Your task to perform on an android device: turn on translation in the chrome app Image 0: 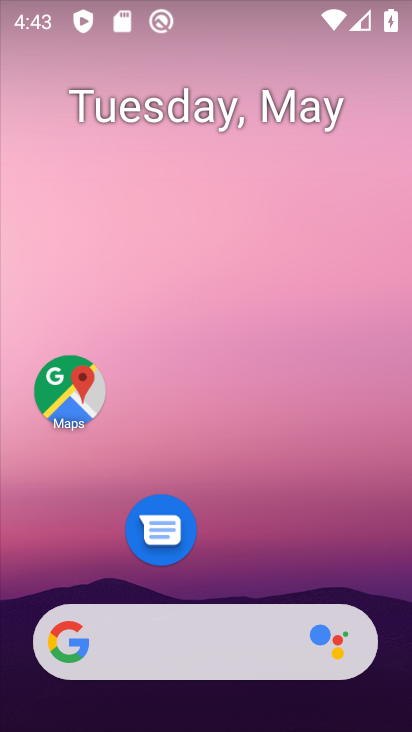
Step 0: drag from (267, 569) to (204, 51)
Your task to perform on an android device: turn on translation in the chrome app Image 1: 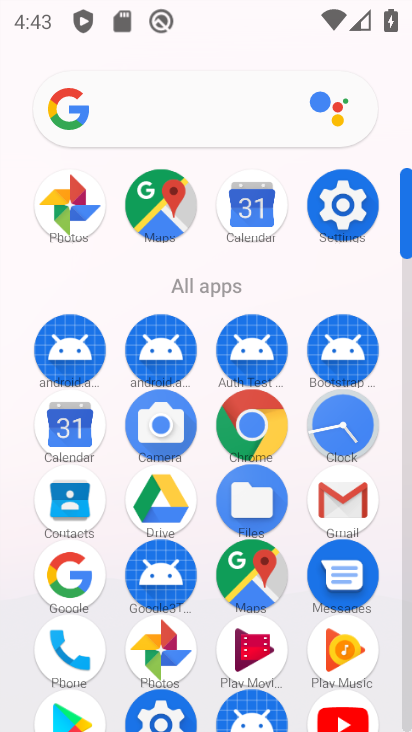
Step 1: click (247, 420)
Your task to perform on an android device: turn on translation in the chrome app Image 2: 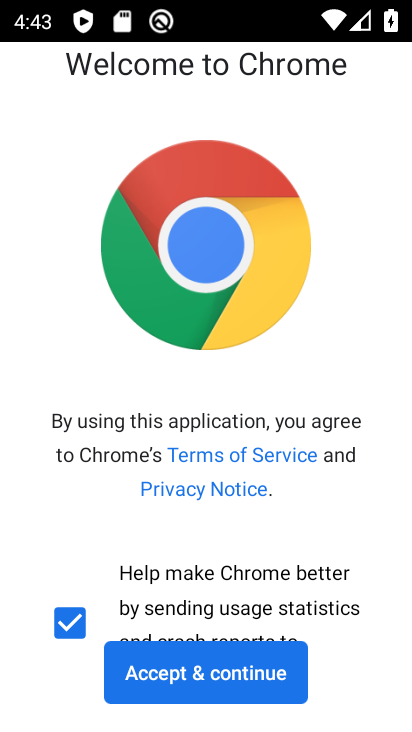
Step 2: click (248, 660)
Your task to perform on an android device: turn on translation in the chrome app Image 3: 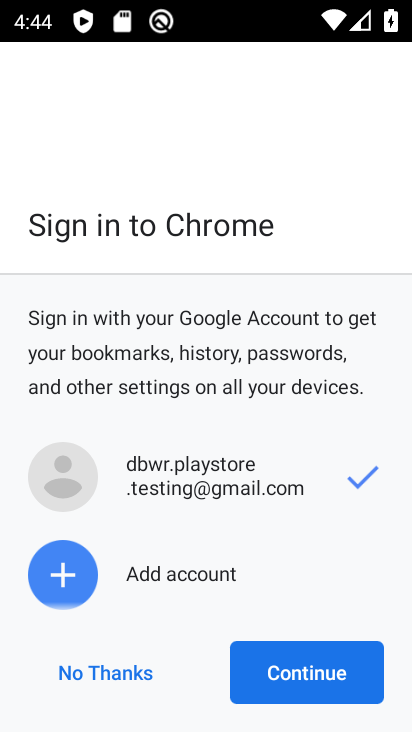
Step 3: click (251, 673)
Your task to perform on an android device: turn on translation in the chrome app Image 4: 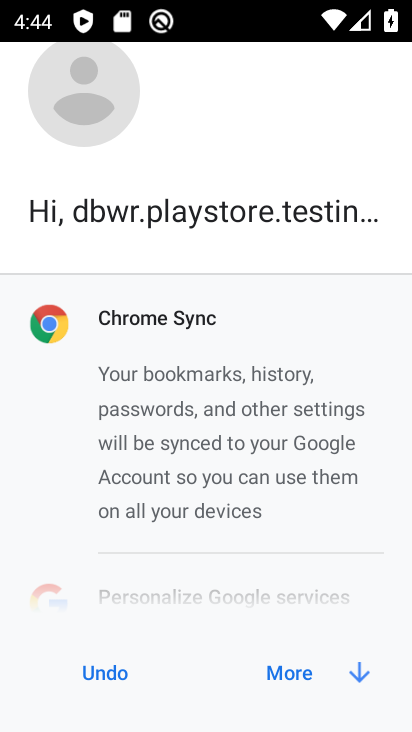
Step 4: click (280, 681)
Your task to perform on an android device: turn on translation in the chrome app Image 5: 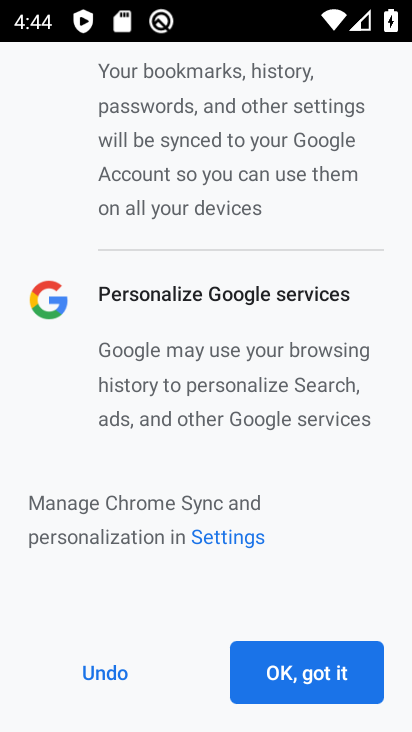
Step 5: click (266, 652)
Your task to perform on an android device: turn on translation in the chrome app Image 6: 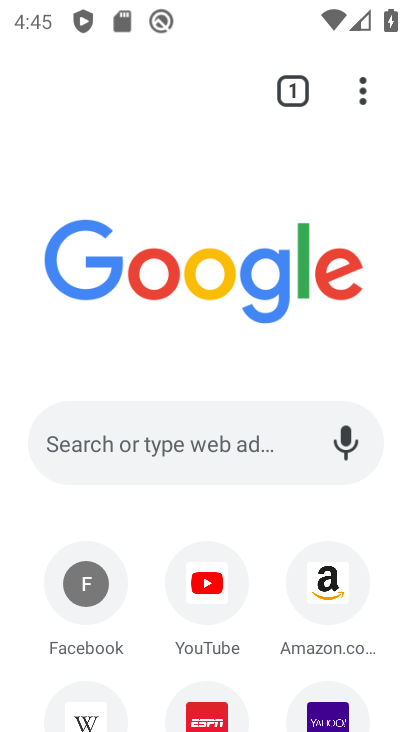
Step 6: click (357, 111)
Your task to perform on an android device: turn on translation in the chrome app Image 7: 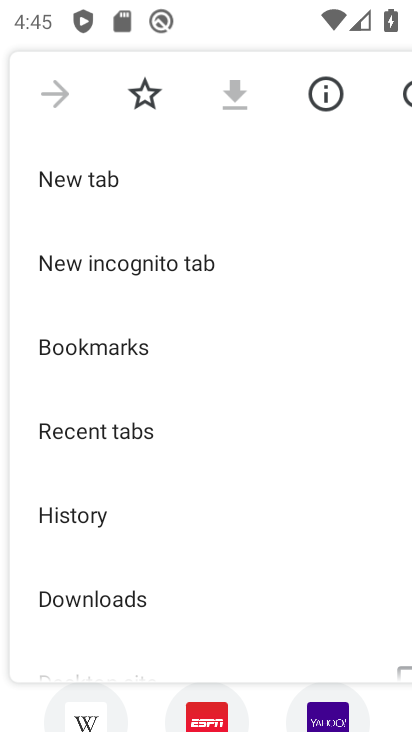
Step 7: drag from (96, 644) to (158, 20)
Your task to perform on an android device: turn on translation in the chrome app Image 8: 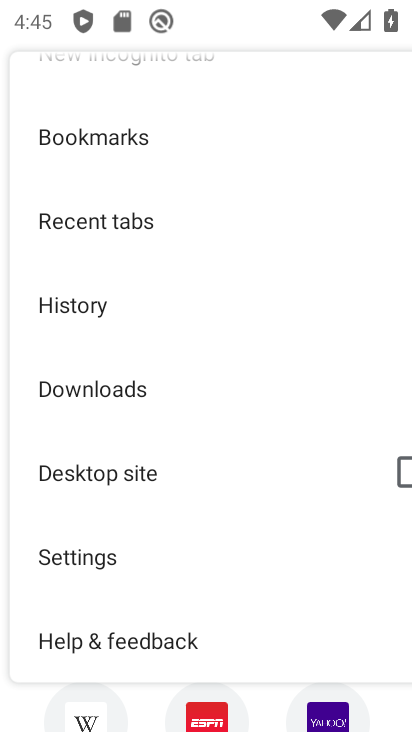
Step 8: click (142, 562)
Your task to perform on an android device: turn on translation in the chrome app Image 9: 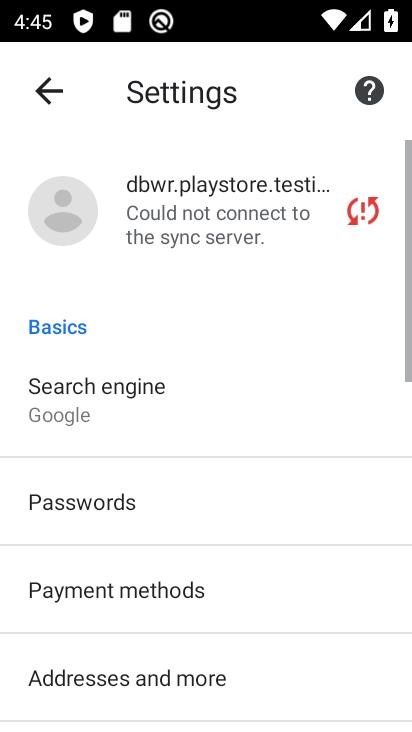
Step 9: drag from (173, 557) to (111, 178)
Your task to perform on an android device: turn on translation in the chrome app Image 10: 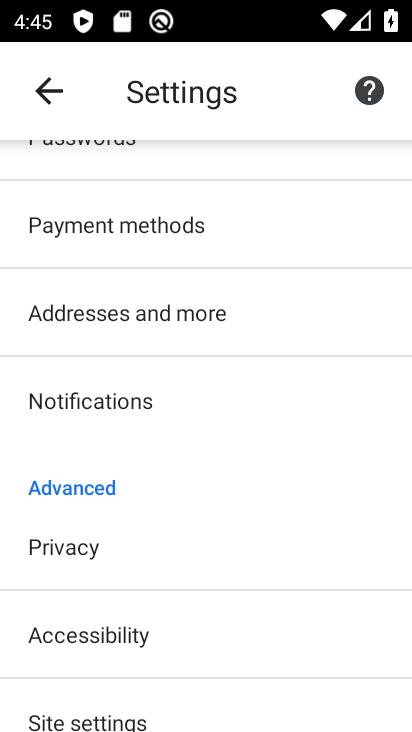
Step 10: drag from (153, 602) to (125, 126)
Your task to perform on an android device: turn on translation in the chrome app Image 11: 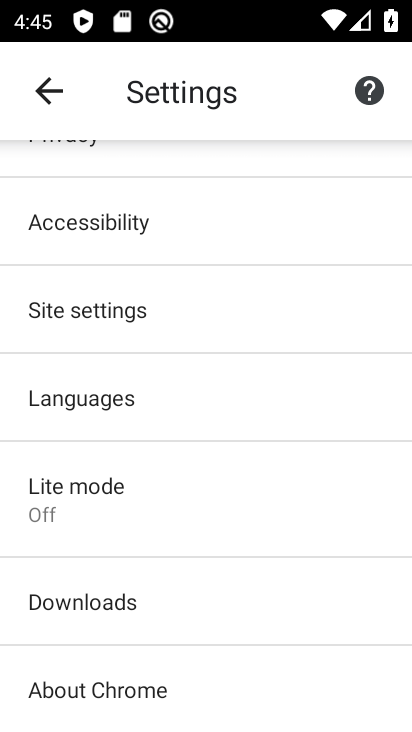
Step 11: click (103, 410)
Your task to perform on an android device: turn on translation in the chrome app Image 12: 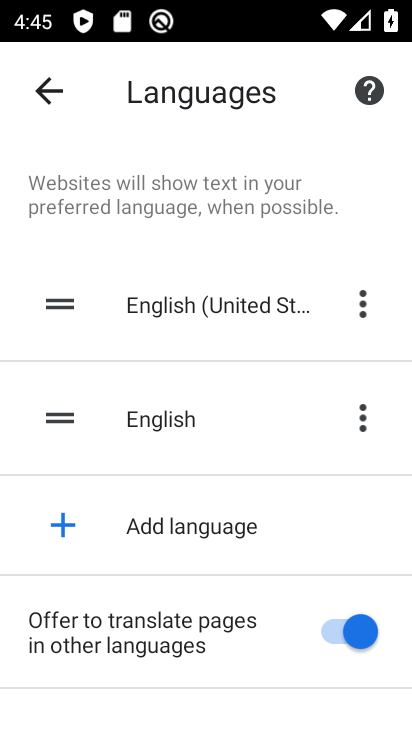
Step 12: click (322, 631)
Your task to perform on an android device: turn on translation in the chrome app Image 13: 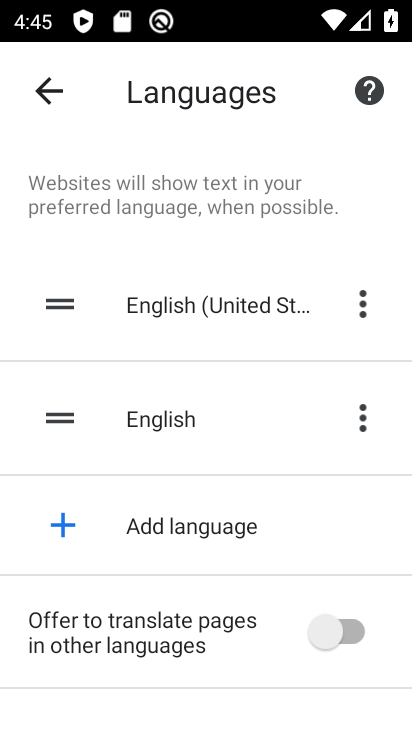
Step 13: click (322, 631)
Your task to perform on an android device: turn on translation in the chrome app Image 14: 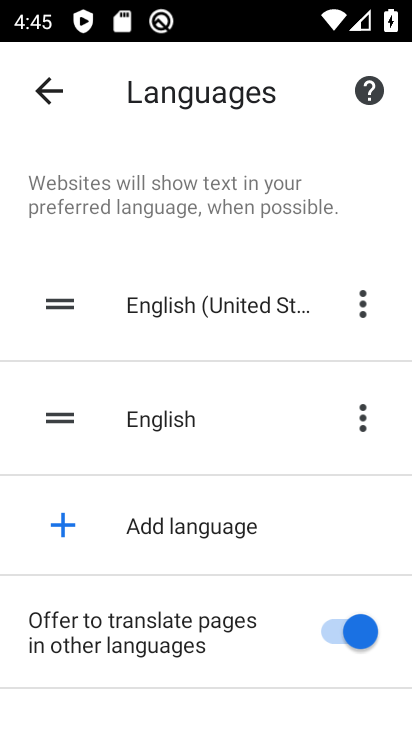
Step 14: task complete